Your task to perform on an android device: Go to notification settings Image 0: 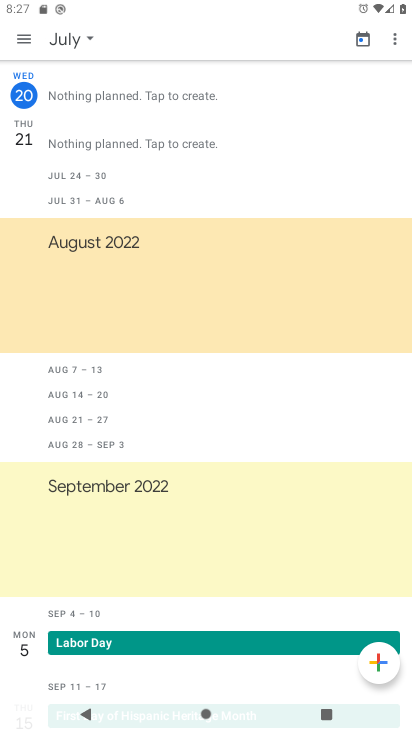
Step 0: press home button
Your task to perform on an android device: Go to notification settings Image 1: 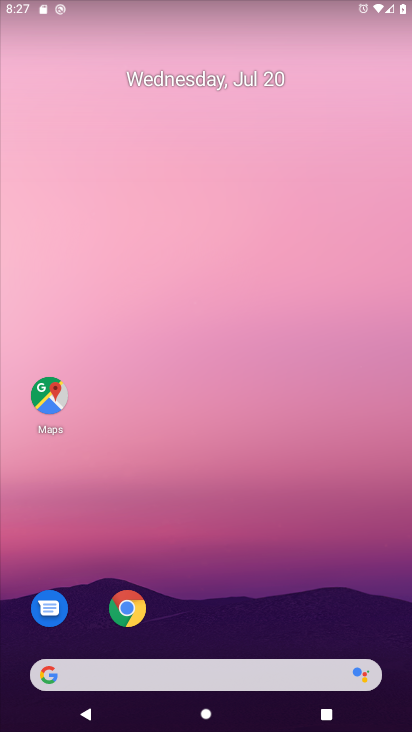
Step 1: drag from (152, 623) to (168, 251)
Your task to perform on an android device: Go to notification settings Image 2: 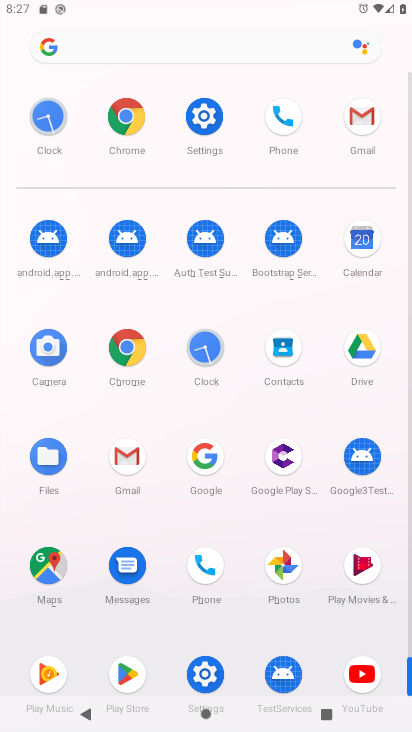
Step 2: click (202, 114)
Your task to perform on an android device: Go to notification settings Image 3: 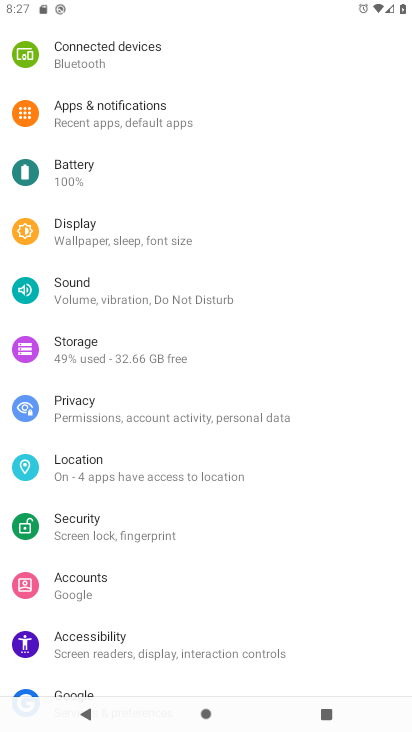
Step 3: click (124, 106)
Your task to perform on an android device: Go to notification settings Image 4: 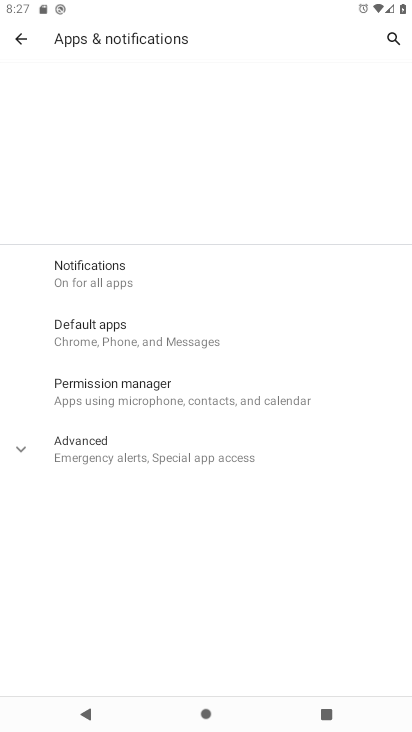
Step 4: click (126, 285)
Your task to perform on an android device: Go to notification settings Image 5: 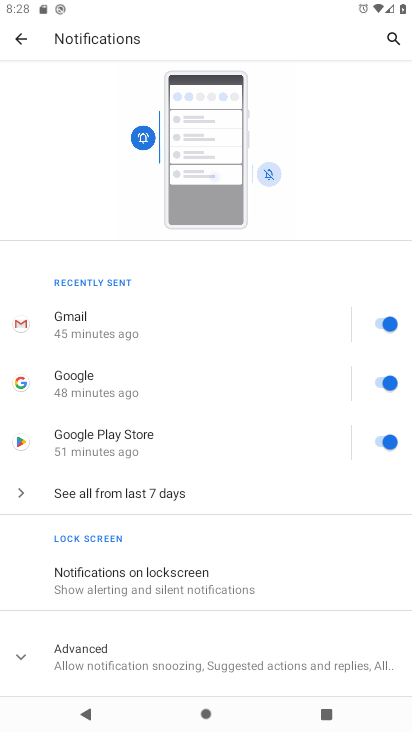
Step 5: task complete